Your task to perform on an android device: turn smart compose on in the gmail app Image 0: 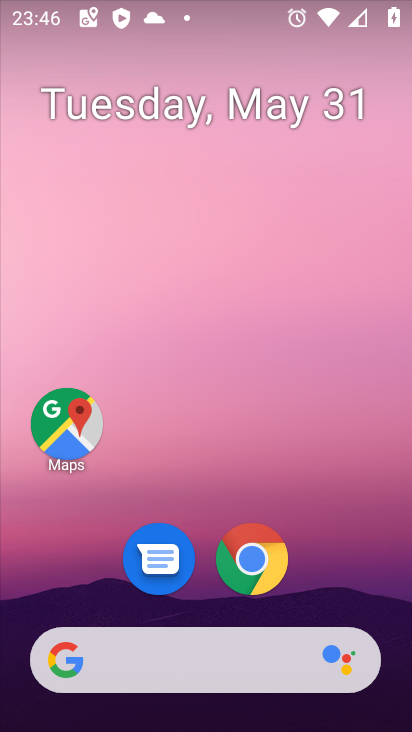
Step 0: drag from (314, 584) to (357, 98)
Your task to perform on an android device: turn smart compose on in the gmail app Image 1: 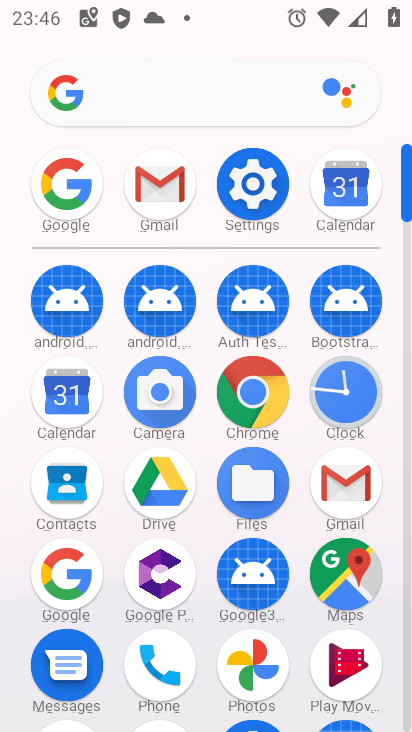
Step 1: click (163, 181)
Your task to perform on an android device: turn smart compose on in the gmail app Image 2: 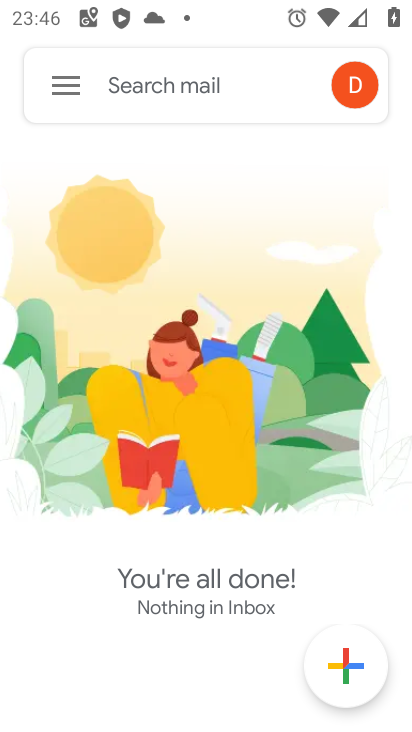
Step 2: click (54, 88)
Your task to perform on an android device: turn smart compose on in the gmail app Image 3: 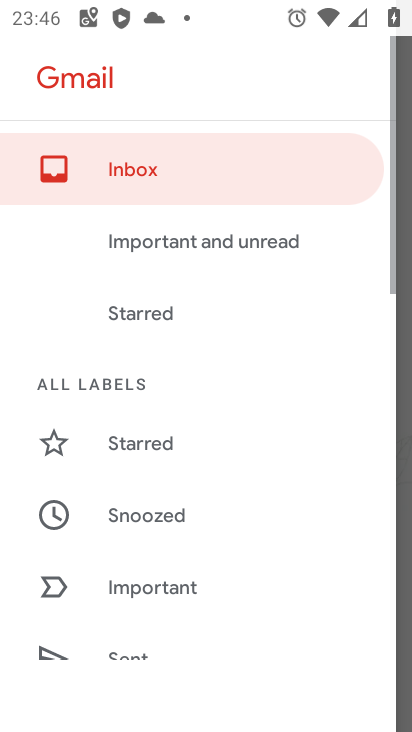
Step 3: drag from (141, 594) to (176, 86)
Your task to perform on an android device: turn smart compose on in the gmail app Image 4: 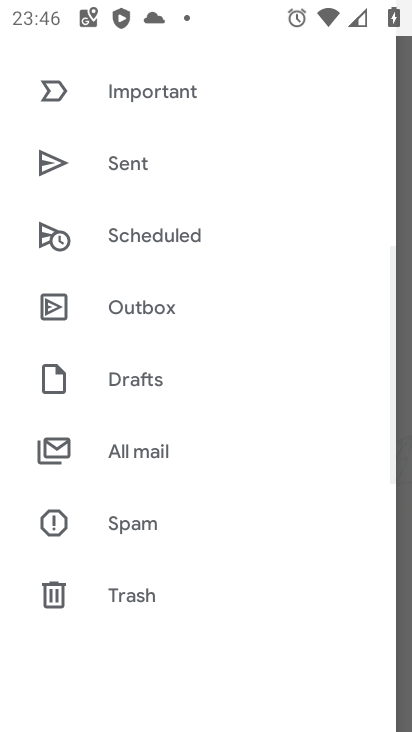
Step 4: drag from (145, 626) to (196, 140)
Your task to perform on an android device: turn smart compose on in the gmail app Image 5: 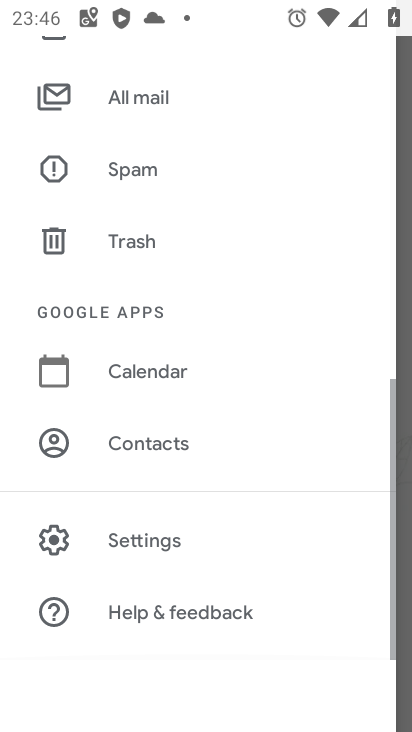
Step 5: click (128, 544)
Your task to perform on an android device: turn smart compose on in the gmail app Image 6: 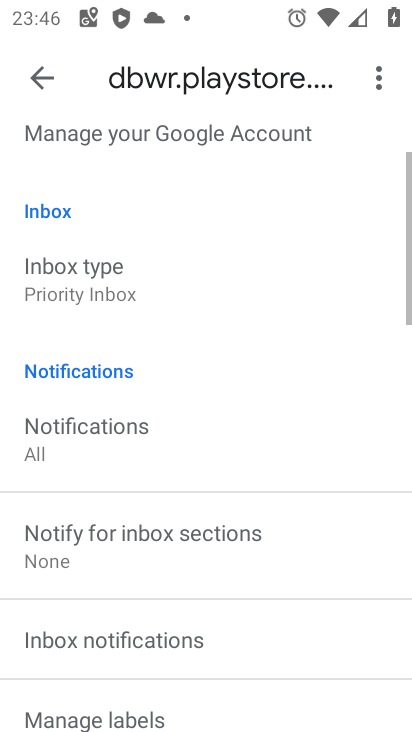
Step 6: task complete